Your task to perform on an android device: open app "Upside-Cash back on gas & food" (install if not already installed) Image 0: 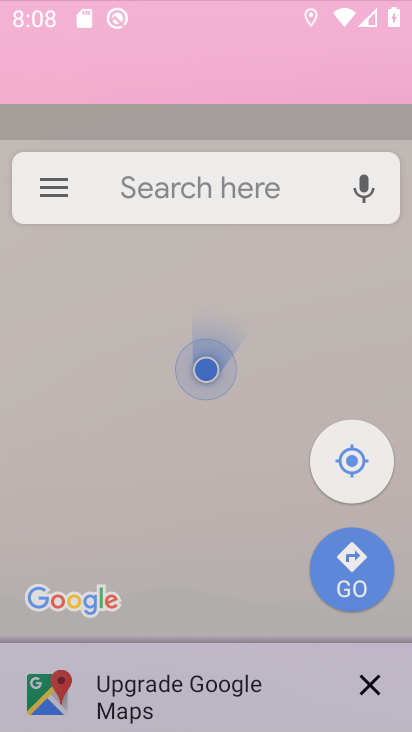
Step 0: press back button
Your task to perform on an android device: open app "Upside-Cash back on gas & food" (install if not already installed) Image 1: 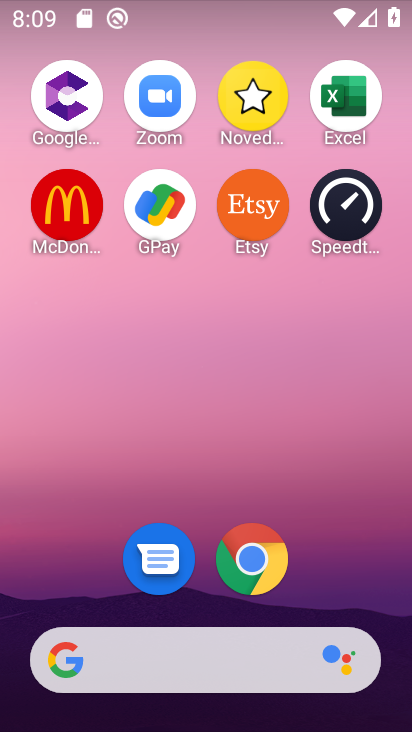
Step 1: drag from (149, 671) to (204, 129)
Your task to perform on an android device: open app "Upside-Cash back on gas & food" (install if not already installed) Image 2: 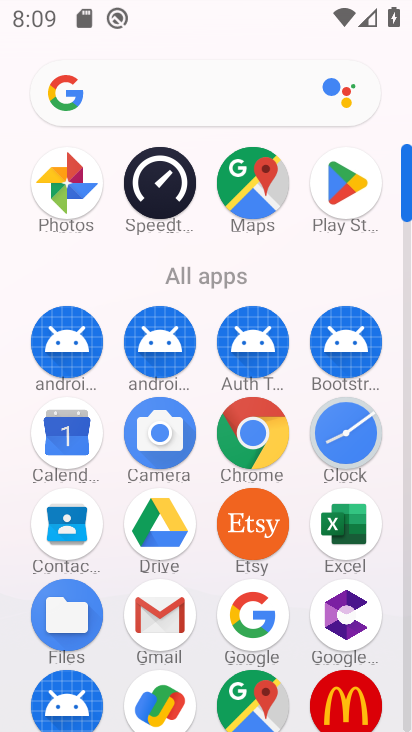
Step 2: click (332, 188)
Your task to perform on an android device: open app "Upside-Cash back on gas & food" (install if not already installed) Image 3: 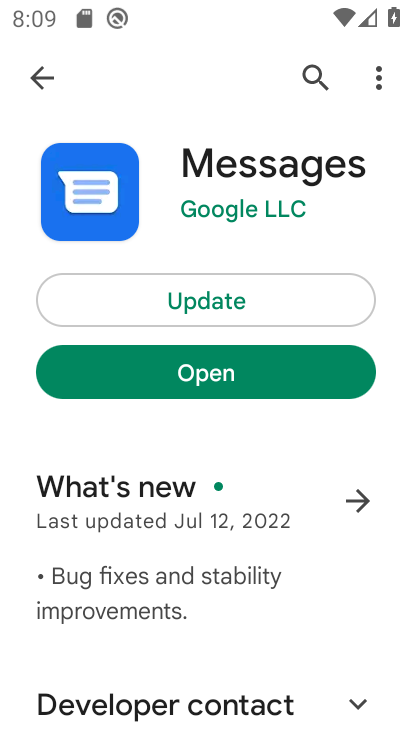
Step 3: click (313, 72)
Your task to perform on an android device: open app "Upside-Cash back on gas & food" (install if not already installed) Image 4: 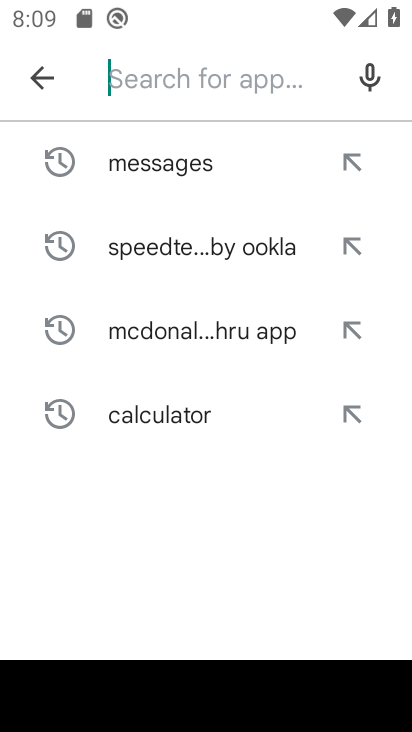
Step 4: type "Upside-Cash back on gas & food"
Your task to perform on an android device: open app "Upside-Cash back on gas & food" (install if not already installed) Image 5: 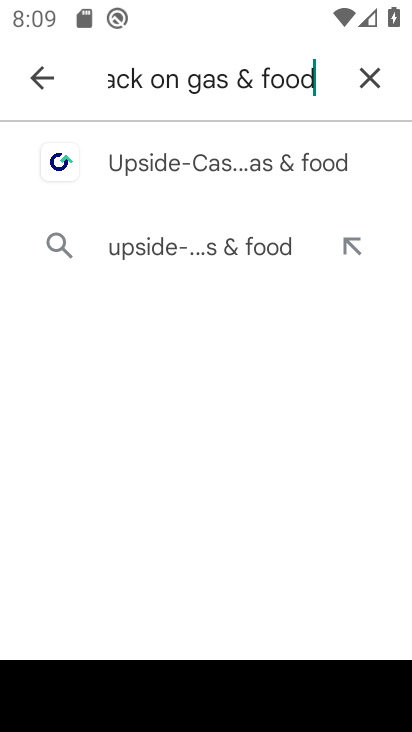
Step 5: click (247, 170)
Your task to perform on an android device: open app "Upside-Cash back on gas & food" (install if not already installed) Image 6: 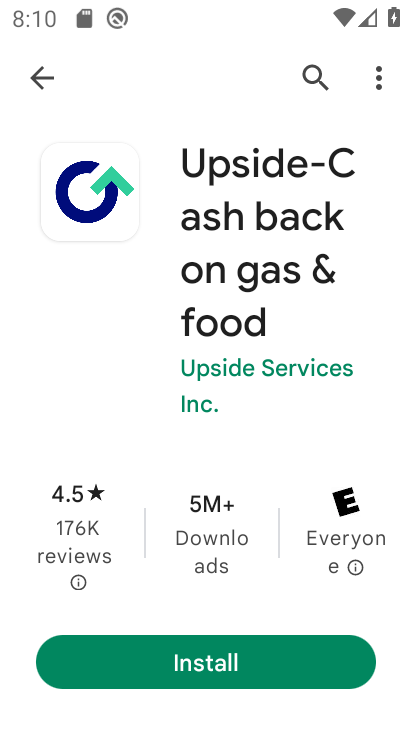
Step 6: click (217, 658)
Your task to perform on an android device: open app "Upside-Cash back on gas & food" (install if not already installed) Image 7: 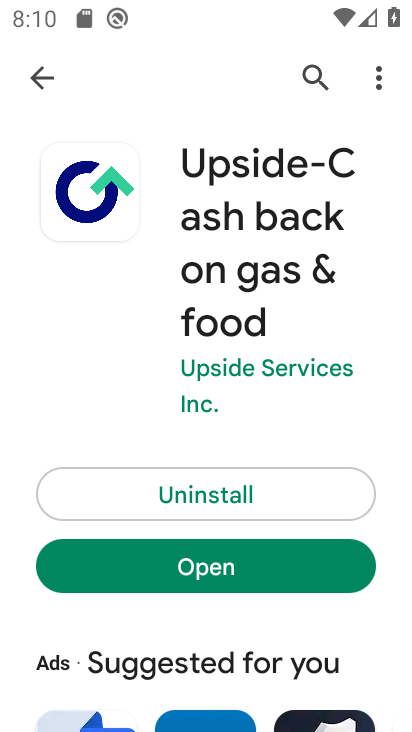
Step 7: click (228, 553)
Your task to perform on an android device: open app "Upside-Cash back on gas & food" (install if not already installed) Image 8: 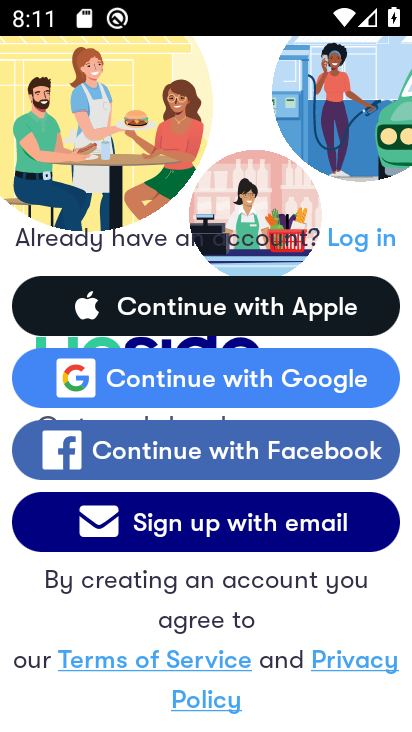
Step 8: task complete